Your task to perform on an android device: Open internet settings Image 0: 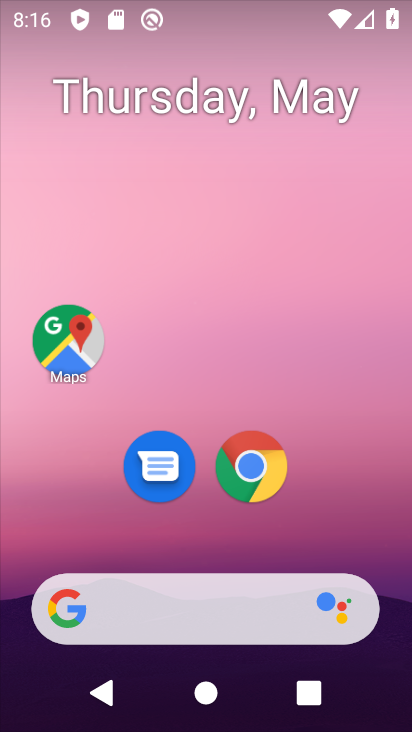
Step 0: drag from (360, 497) to (295, 0)
Your task to perform on an android device: Open internet settings Image 1: 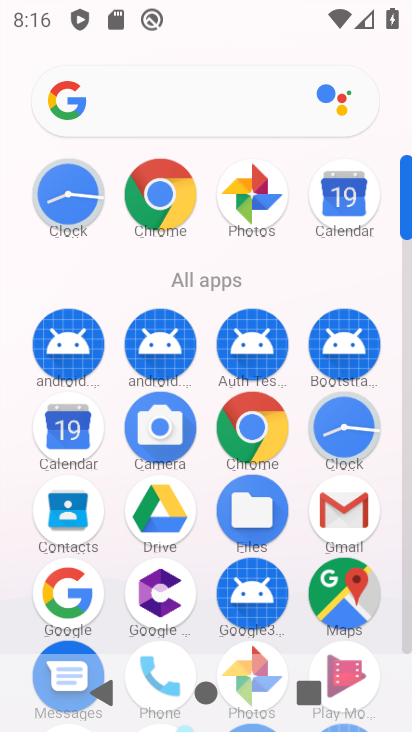
Step 1: click (408, 635)
Your task to perform on an android device: Open internet settings Image 2: 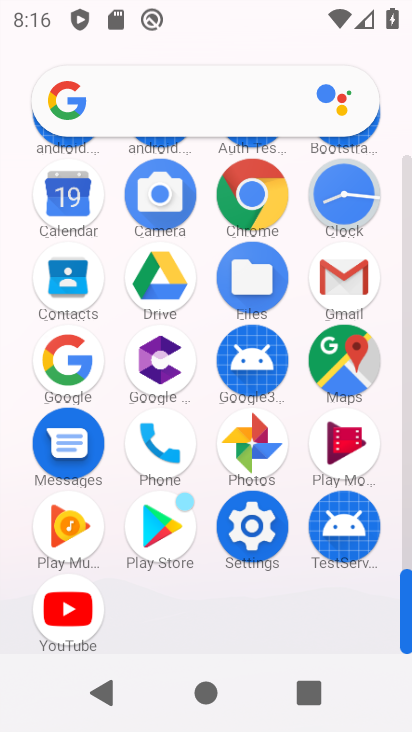
Step 2: click (249, 530)
Your task to perform on an android device: Open internet settings Image 3: 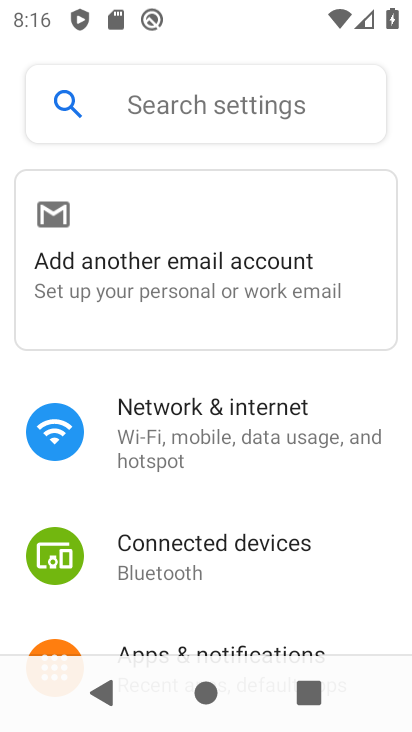
Step 3: click (247, 456)
Your task to perform on an android device: Open internet settings Image 4: 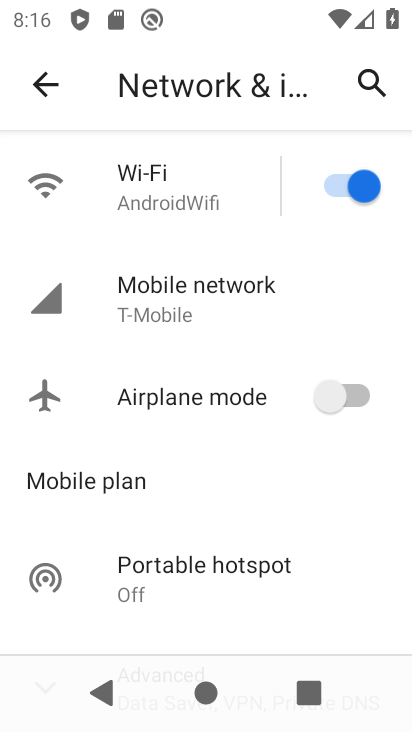
Step 4: task complete